Your task to perform on an android device: empty trash in google photos Image 0: 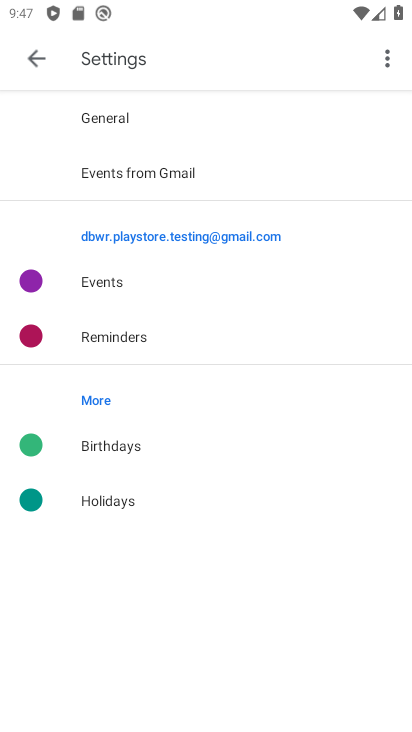
Step 0: press home button
Your task to perform on an android device: empty trash in google photos Image 1: 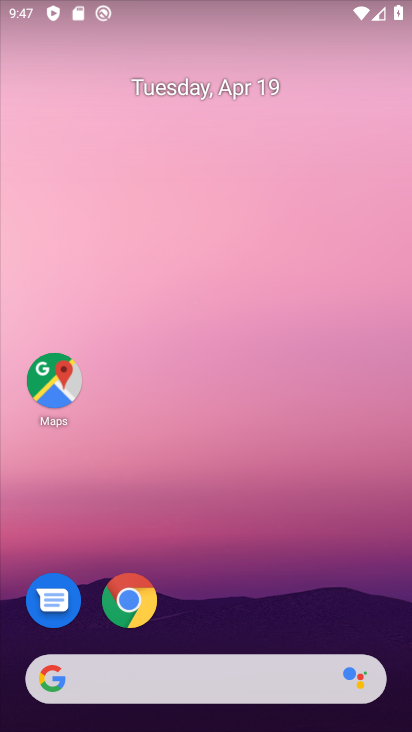
Step 1: drag from (305, 321) to (272, 76)
Your task to perform on an android device: empty trash in google photos Image 2: 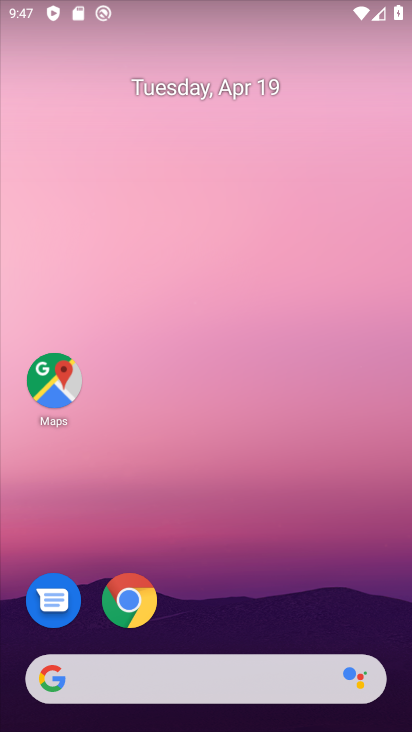
Step 2: drag from (280, 629) to (272, 31)
Your task to perform on an android device: empty trash in google photos Image 3: 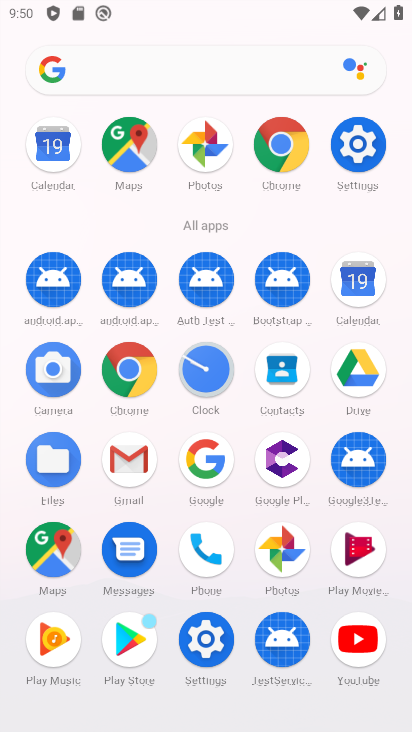
Step 3: click (197, 145)
Your task to perform on an android device: empty trash in google photos Image 4: 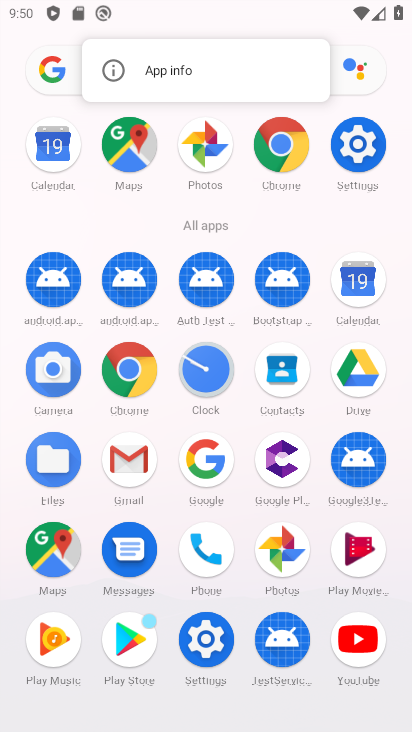
Step 4: click (197, 145)
Your task to perform on an android device: empty trash in google photos Image 5: 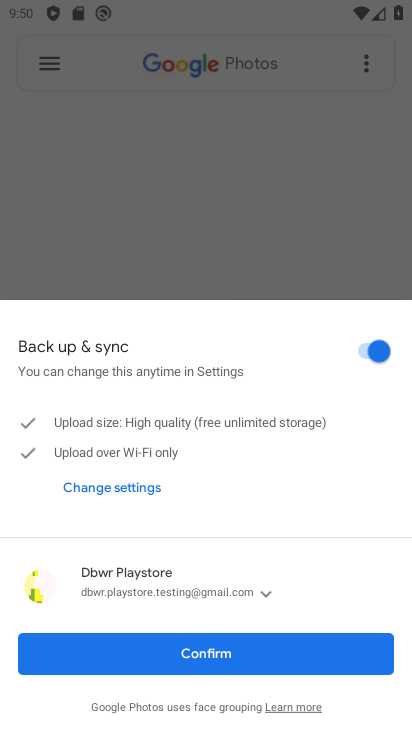
Step 5: click (171, 644)
Your task to perform on an android device: empty trash in google photos Image 6: 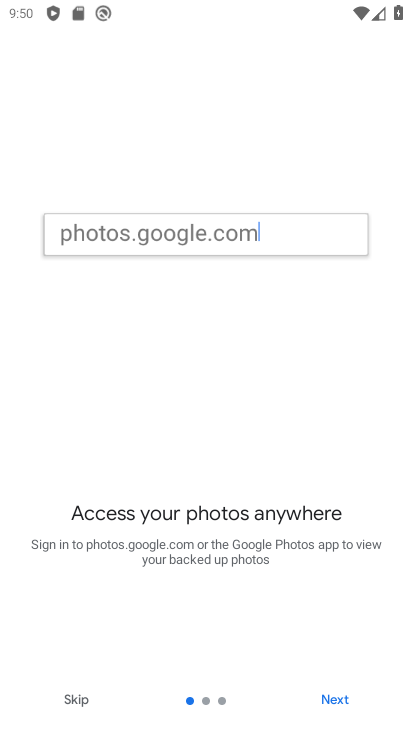
Step 6: click (325, 708)
Your task to perform on an android device: empty trash in google photos Image 7: 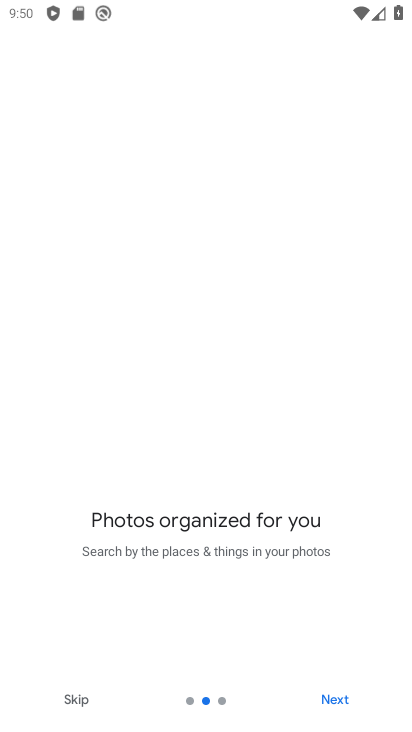
Step 7: click (331, 697)
Your task to perform on an android device: empty trash in google photos Image 8: 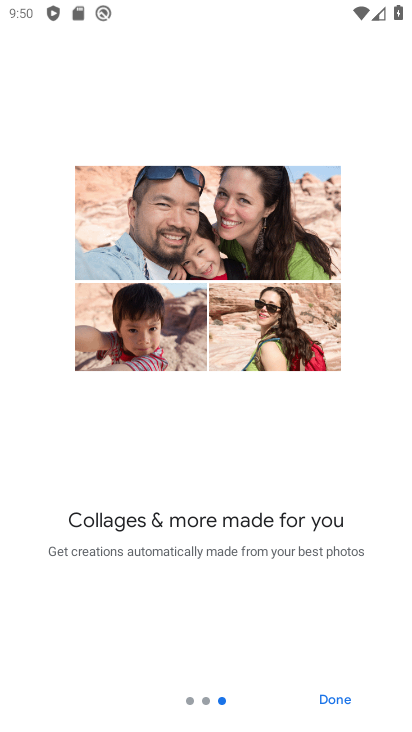
Step 8: click (331, 697)
Your task to perform on an android device: empty trash in google photos Image 9: 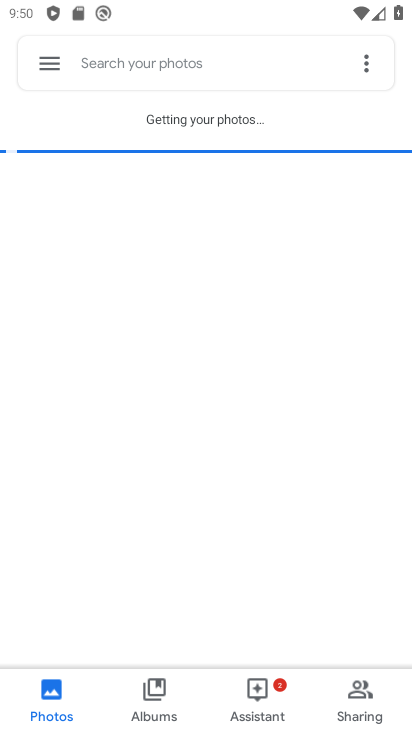
Step 9: click (55, 66)
Your task to perform on an android device: empty trash in google photos Image 10: 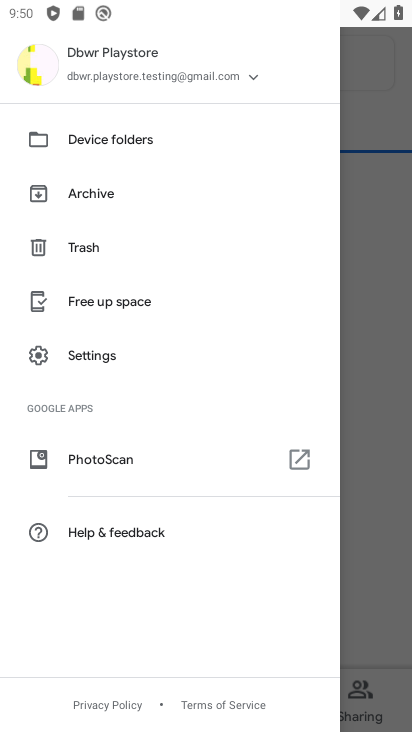
Step 10: click (108, 251)
Your task to perform on an android device: empty trash in google photos Image 11: 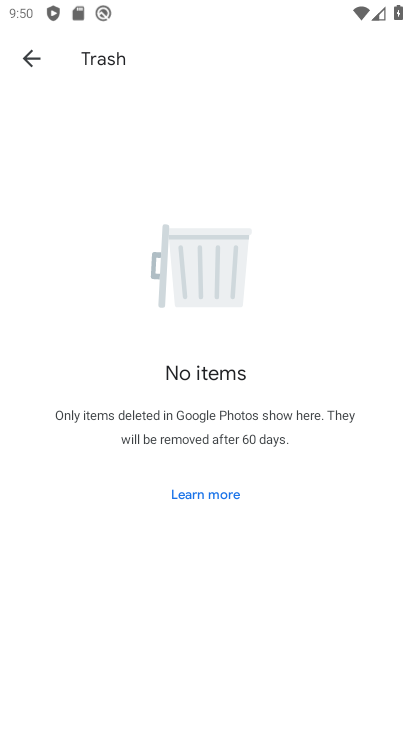
Step 11: task complete